Your task to perform on an android device: find snoozed emails in the gmail app Image 0: 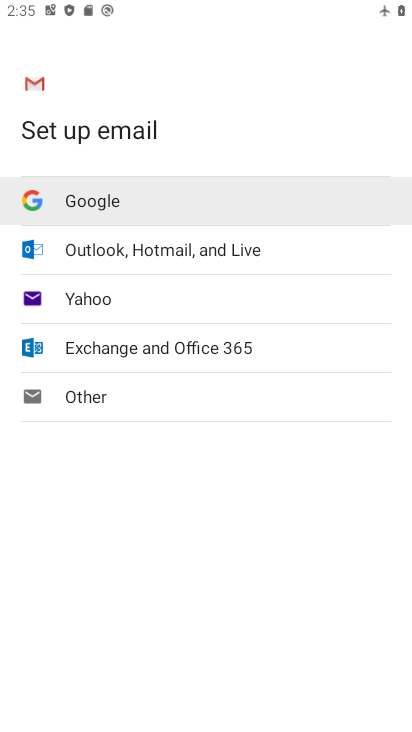
Step 0: press home button
Your task to perform on an android device: find snoozed emails in the gmail app Image 1: 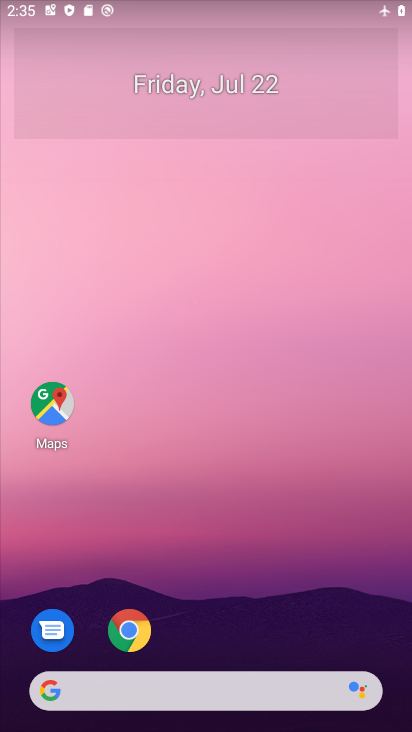
Step 1: drag from (220, 655) to (348, 61)
Your task to perform on an android device: find snoozed emails in the gmail app Image 2: 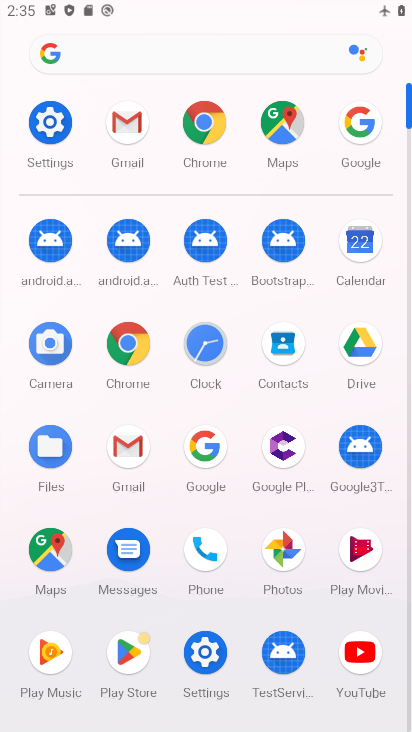
Step 2: click (125, 448)
Your task to perform on an android device: find snoozed emails in the gmail app Image 3: 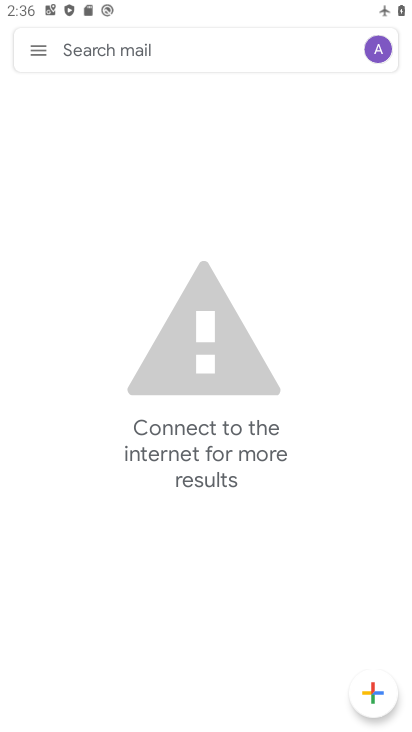
Step 3: click (33, 52)
Your task to perform on an android device: find snoozed emails in the gmail app Image 4: 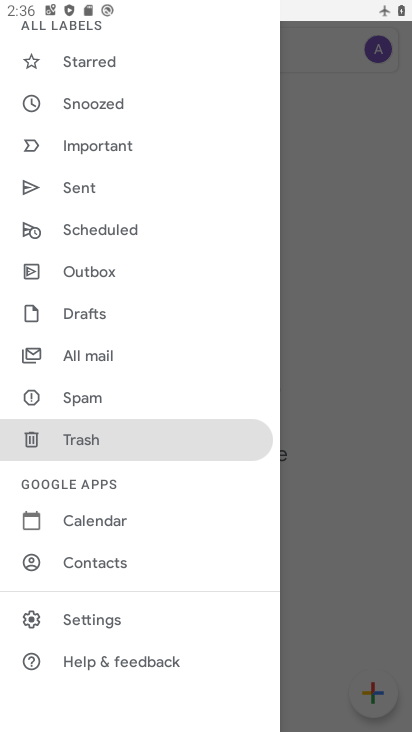
Step 4: click (102, 98)
Your task to perform on an android device: find snoozed emails in the gmail app Image 5: 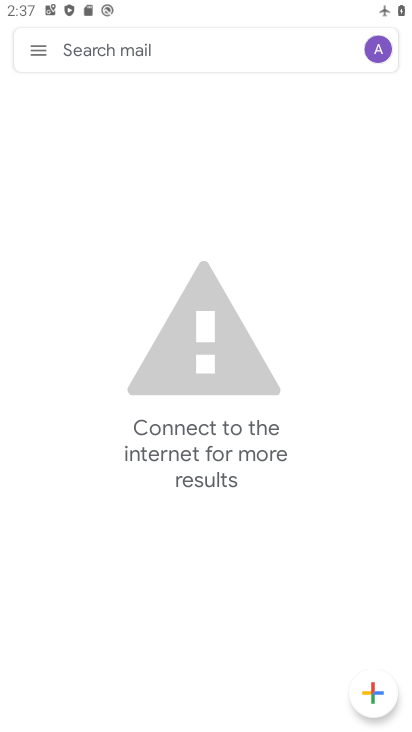
Step 5: click (31, 40)
Your task to perform on an android device: find snoozed emails in the gmail app Image 6: 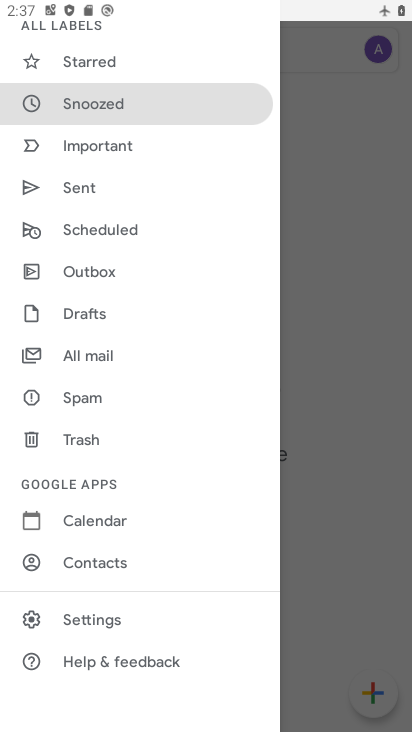
Step 6: click (91, 110)
Your task to perform on an android device: find snoozed emails in the gmail app Image 7: 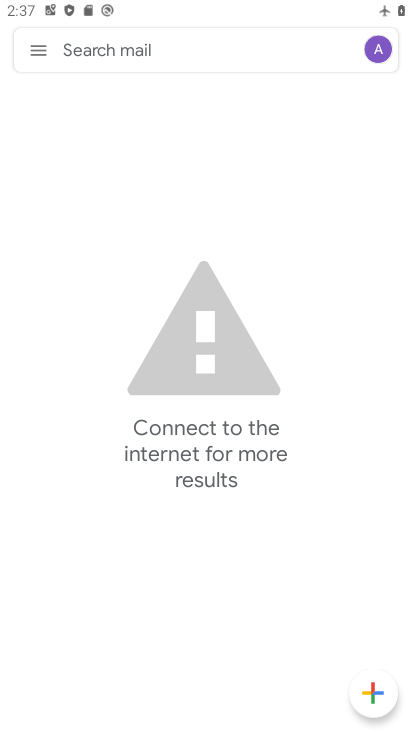
Step 7: task complete